Your task to perform on an android device: Search for Mexican restaurants on Maps Image 0: 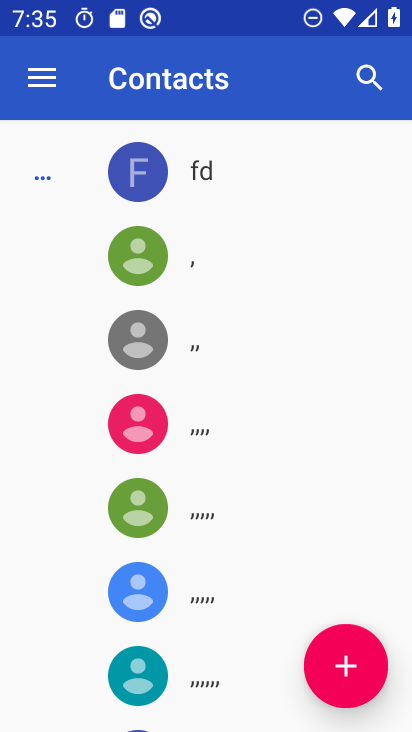
Step 0: press home button
Your task to perform on an android device: Search for Mexican restaurants on Maps Image 1: 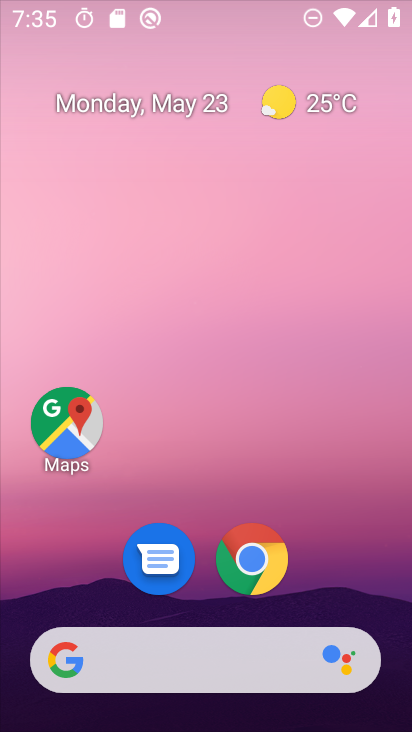
Step 1: drag from (400, 646) to (300, 142)
Your task to perform on an android device: Search for Mexican restaurants on Maps Image 2: 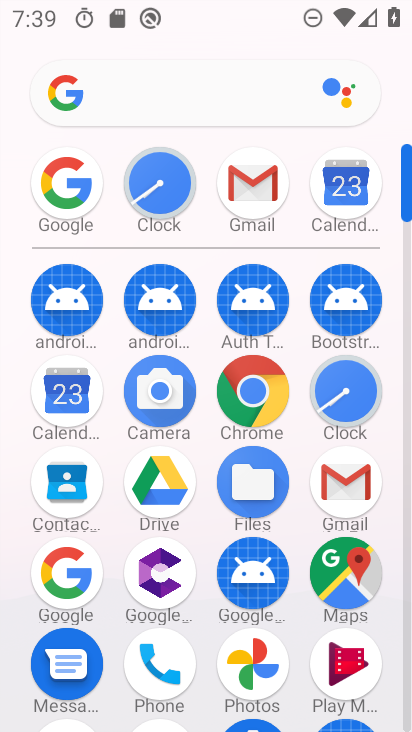
Step 2: click (361, 585)
Your task to perform on an android device: Search for Mexican restaurants on Maps Image 3: 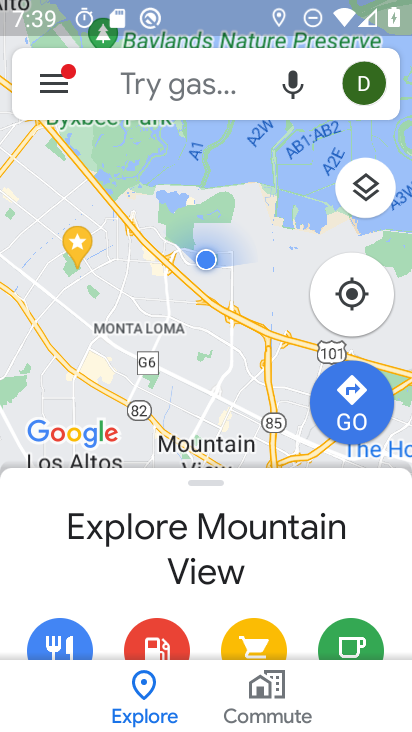
Step 3: click (133, 100)
Your task to perform on an android device: Search for Mexican restaurants on Maps Image 4: 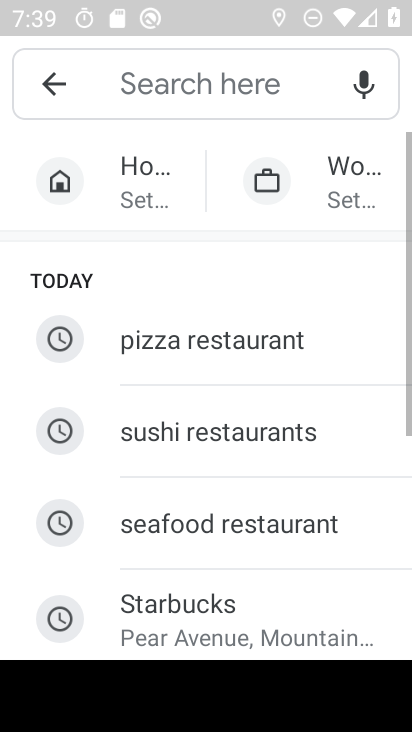
Step 4: task complete